Your task to perform on an android device: Search for Italian restaurants on Maps Image 0: 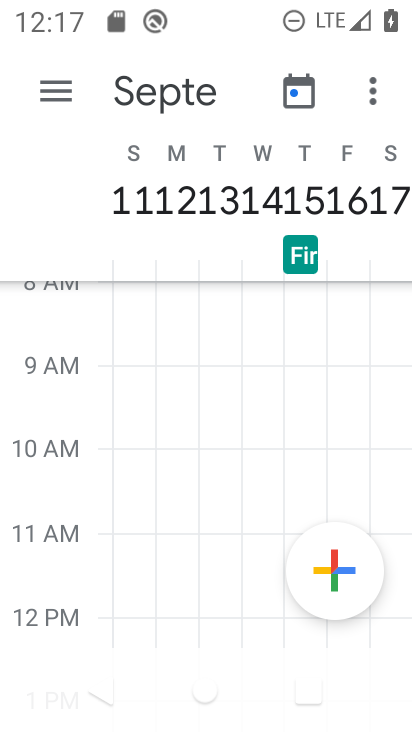
Step 0: press home button
Your task to perform on an android device: Search for Italian restaurants on Maps Image 1: 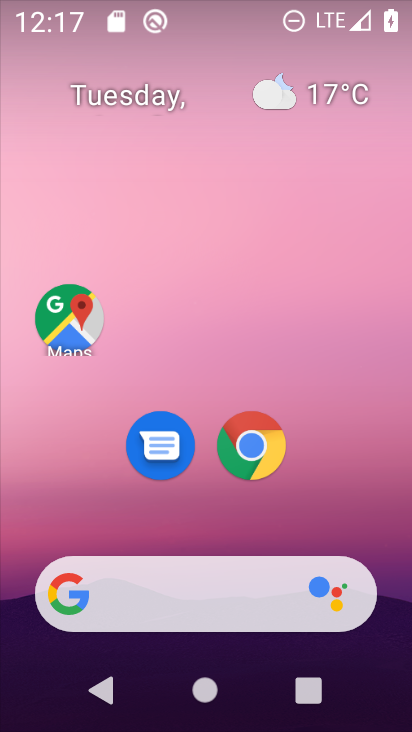
Step 1: click (76, 317)
Your task to perform on an android device: Search for Italian restaurants on Maps Image 2: 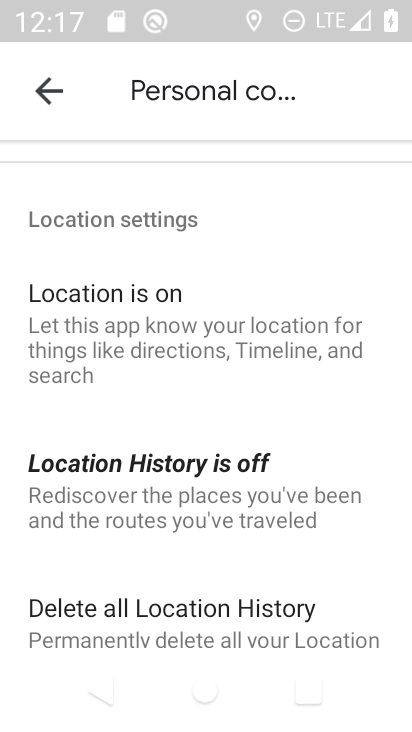
Step 2: press back button
Your task to perform on an android device: Search for Italian restaurants on Maps Image 3: 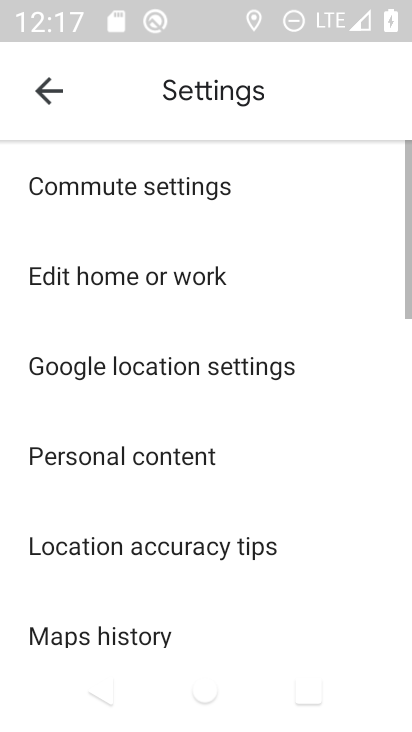
Step 3: press back button
Your task to perform on an android device: Search for Italian restaurants on Maps Image 4: 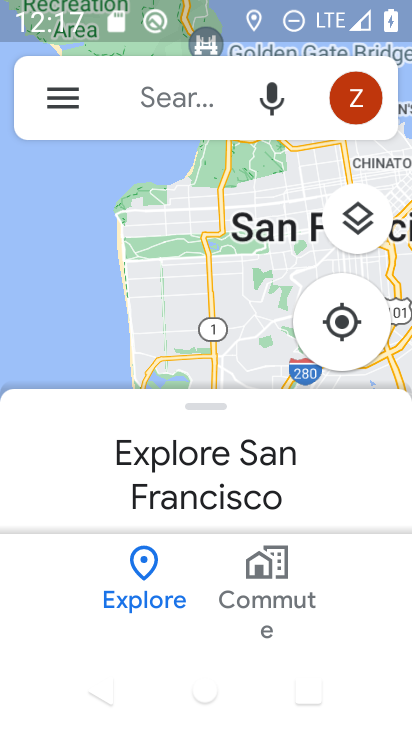
Step 4: click (165, 90)
Your task to perform on an android device: Search for Italian restaurants on Maps Image 5: 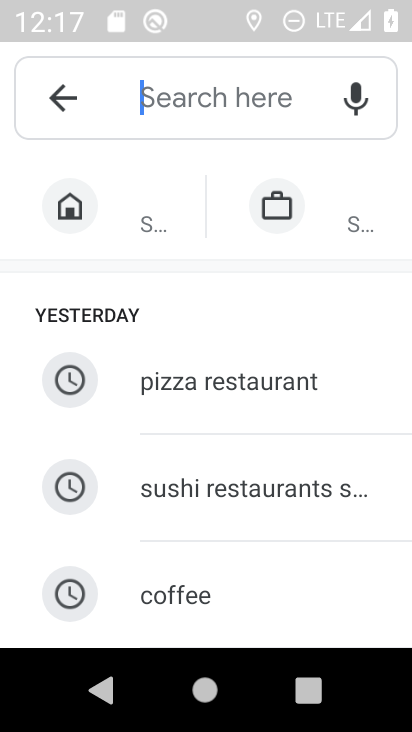
Step 5: type "italian restaurants"
Your task to perform on an android device: Search for Italian restaurants on Maps Image 6: 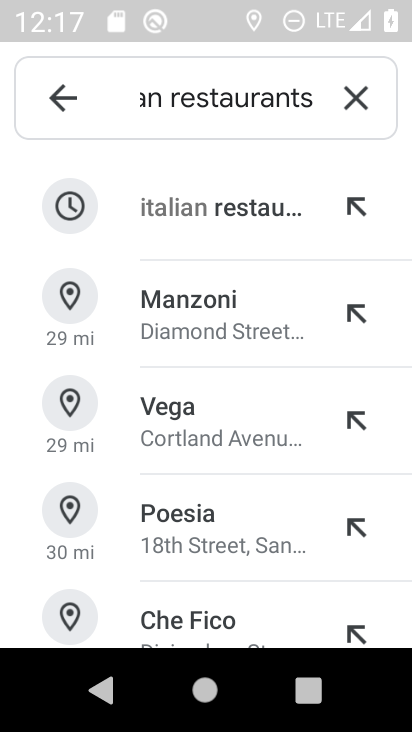
Step 6: click (207, 216)
Your task to perform on an android device: Search for Italian restaurants on Maps Image 7: 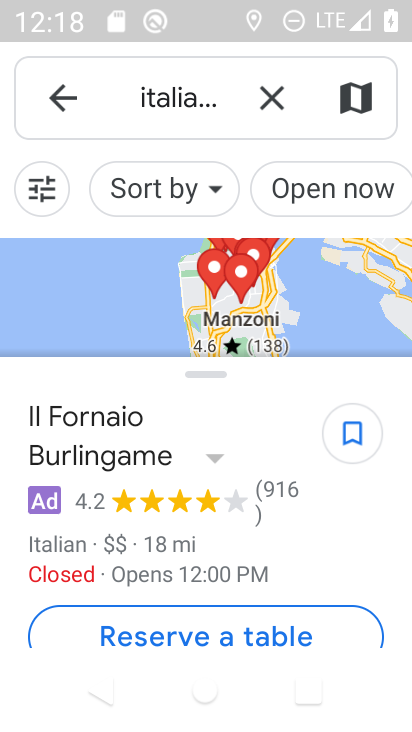
Step 7: task complete